Your task to perform on an android device: turn on the 24-hour format for clock Image 0: 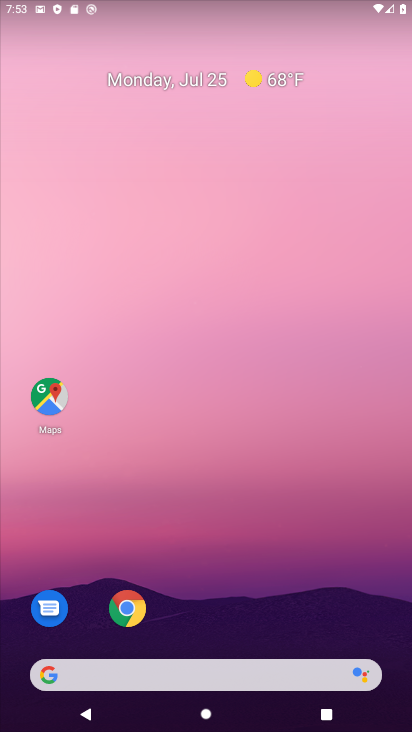
Step 0: drag from (281, 635) to (232, 20)
Your task to perform on an android device: turn on the 24-hour format for clock Image 1: 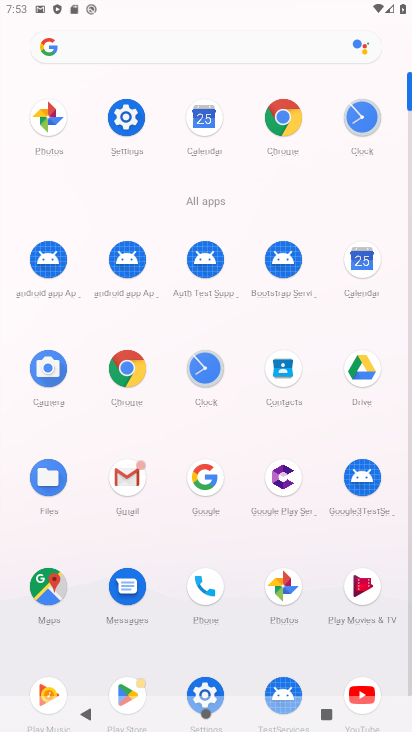
Step 1: click (360, 119)
Your task to perform on an android device: turn on the 24-hour format for clock Image 2: 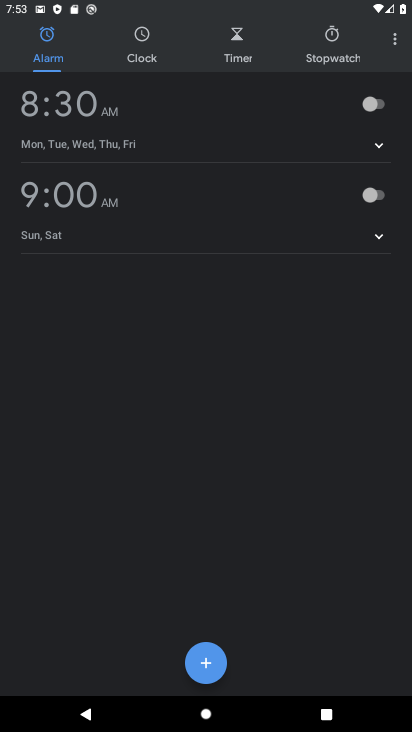
Step 2: click (399, 48)
Your task to perform on an android device: turn on the 24-hour format for clock Image 3: 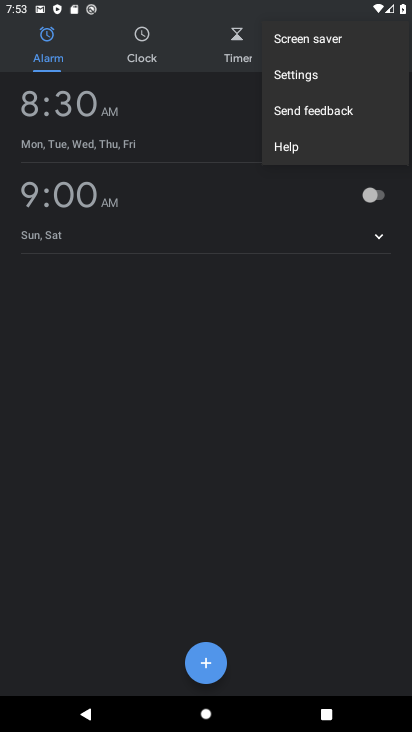
Step 3: click (301, 82)
Your task to perform on an android device: turn on the 24-hour format for clock Image 4: 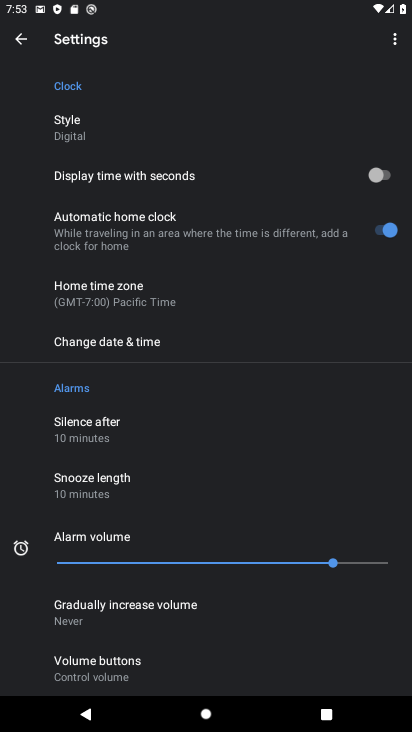
Step 4: click (103, 351)
Your task to perform on an android device: turn on the 24-hour format for clock Image 5: 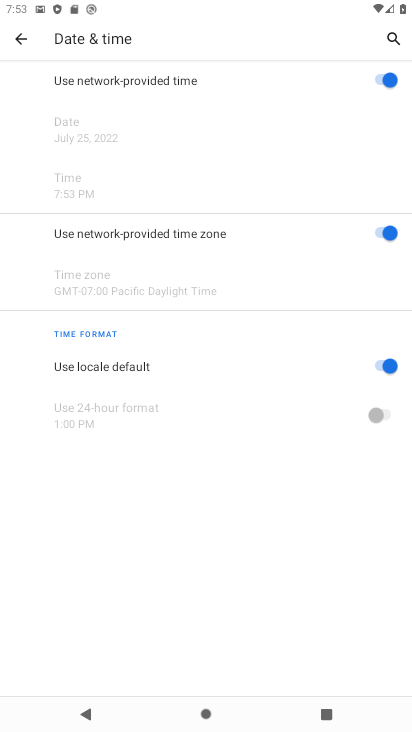
Step 5: click (386, 368)
Your task to perform on an android device: turn on the 24-hour format for clock Image 6: 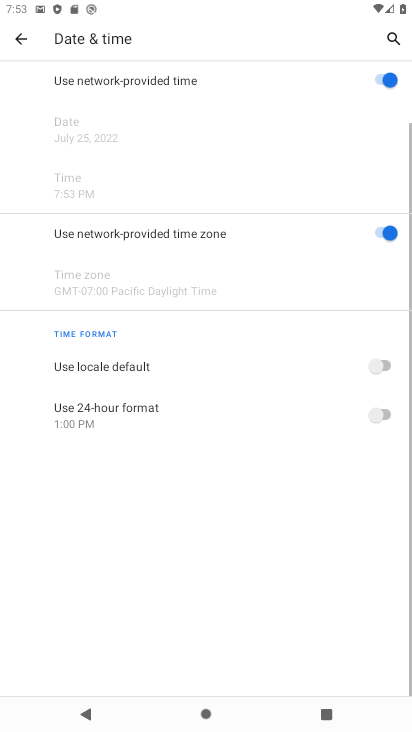
Step 6: click (383, 415)
Your task to perform on an android device: turn on the 24-hour format for clock Image 7: 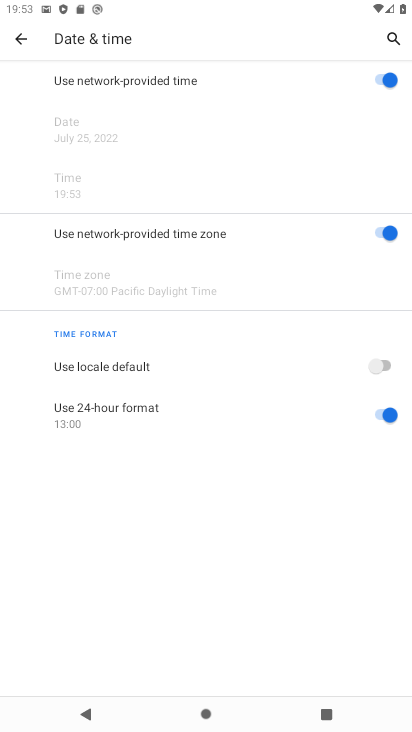
Step 7: task complete